Your task to perform on an android device: Open the phone app and click the voicemail tab. Image 0: 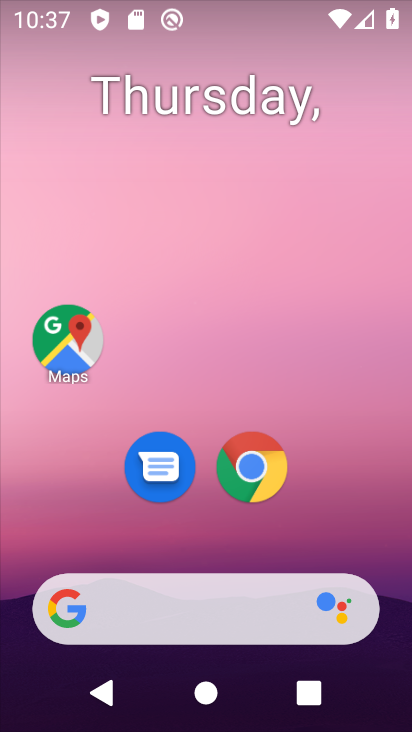
Step 0: drag from (243, 551) to (283, 246)
Your task to perform on an android device: Open the phone app and click the voicemail tab. Image 1: 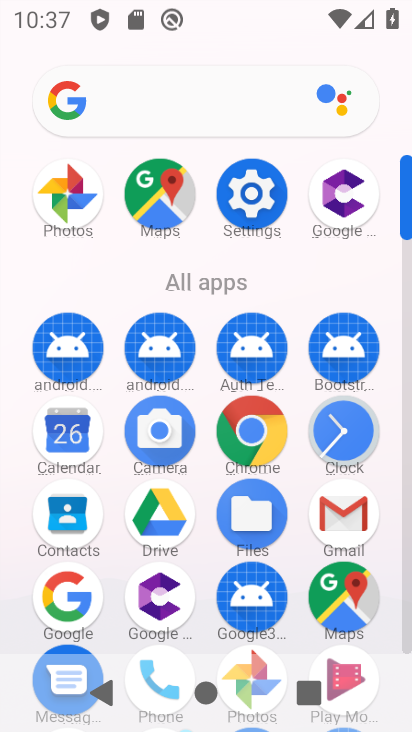
Step 1: click (154, 652)
Your task to perform on an android device: Open the phone app and click the voicemail tab. Image 2: 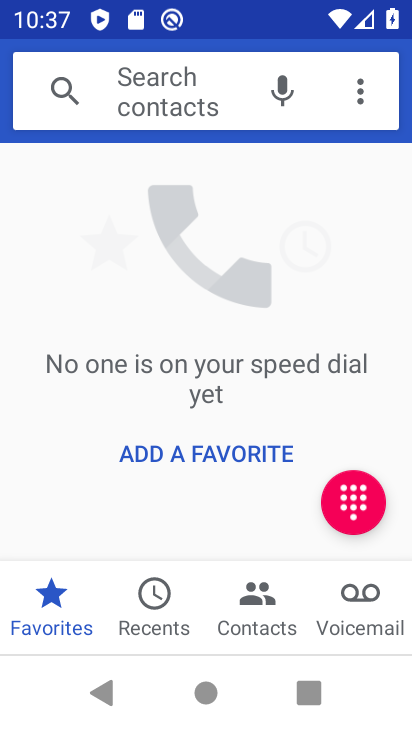
Step 2: click (351, 629)
Your task to perform on an android device: Open the phone app and click the voicemail tab. Image 3: 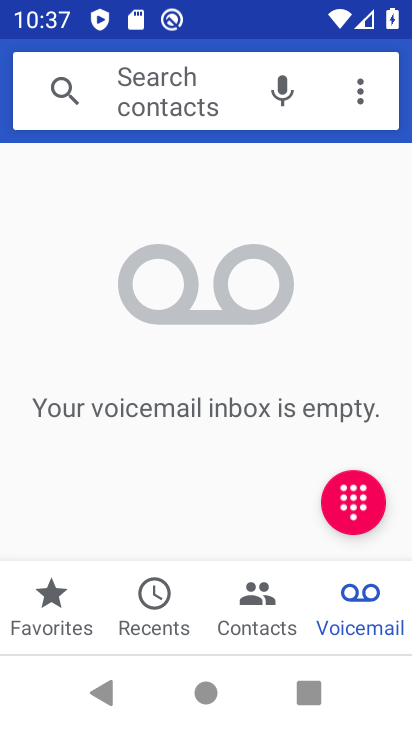
Step 3: task complete